Your task to perform on an android device: check google app version Image 0: 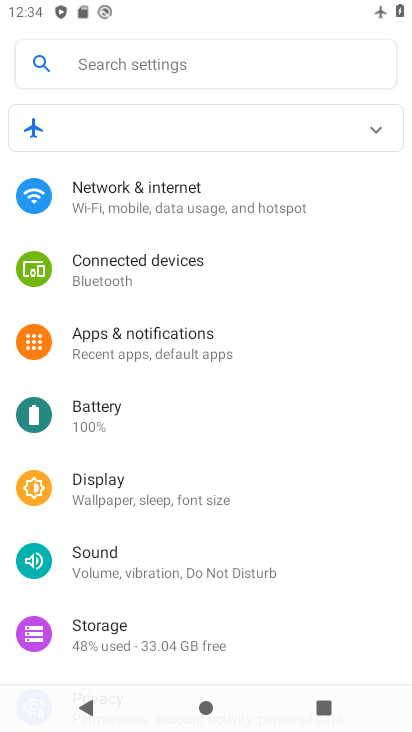
Step 0: press home button
Your task to perform on an android device: check google app version Image 1: 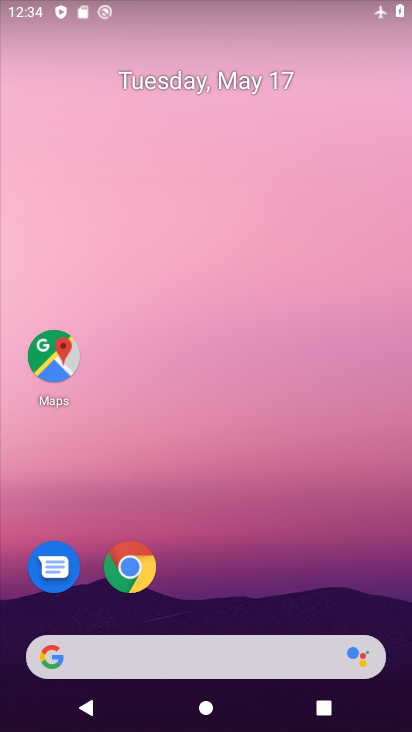
Step 1: drag from (263, 582) to (241, 137)
Your task to perform on an android device: check google app version Image 2: 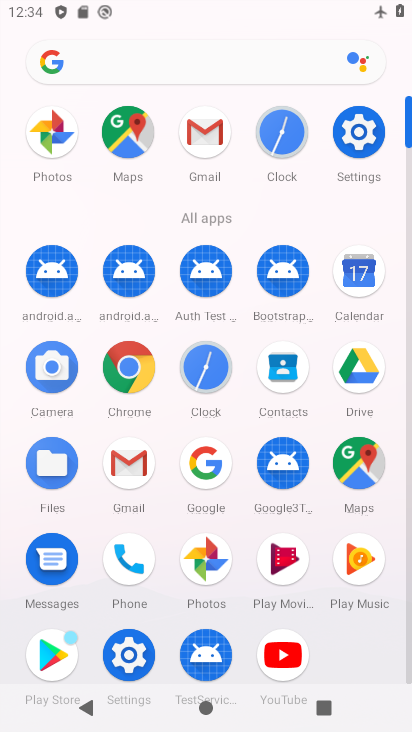
Step 2: click (210, 455)
Your task to perform on an android device: check google app version Image 3: 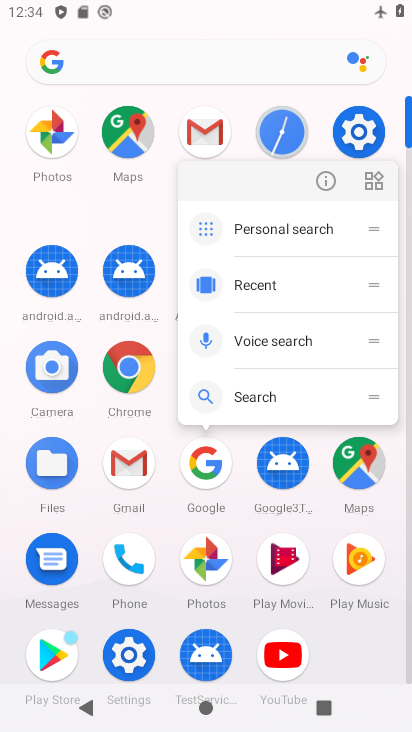
Step 3: click (324, 181)
Your task to perform on an android device: check google app version Image 4: 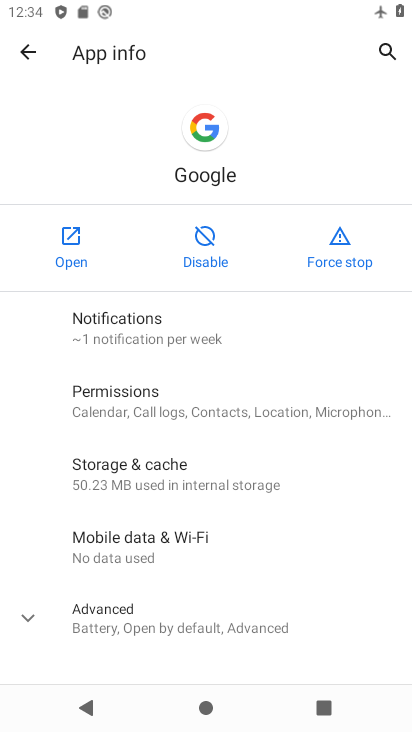
Step 4: drag from (242, 586) to (191, 310)
Your task to perform on an android device: check google app version Image 5: 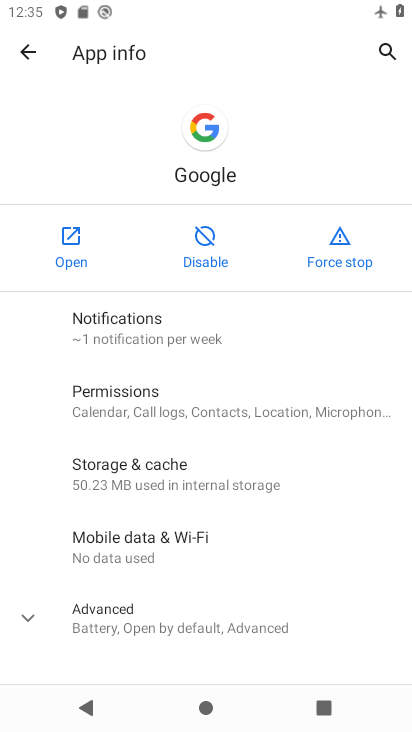
Step 5: click (104, 610)
Your task to perform on an android device: check google app version Image 6: 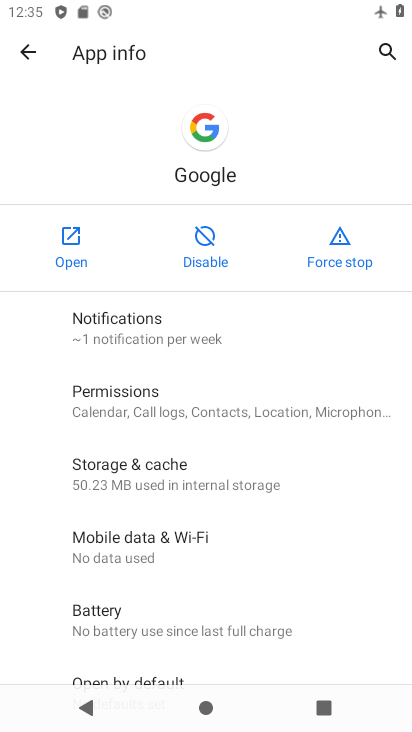
Step 6: drag from (104, 610) to (71, 202)
Your task to perform on an android device: check google app version Image 7: 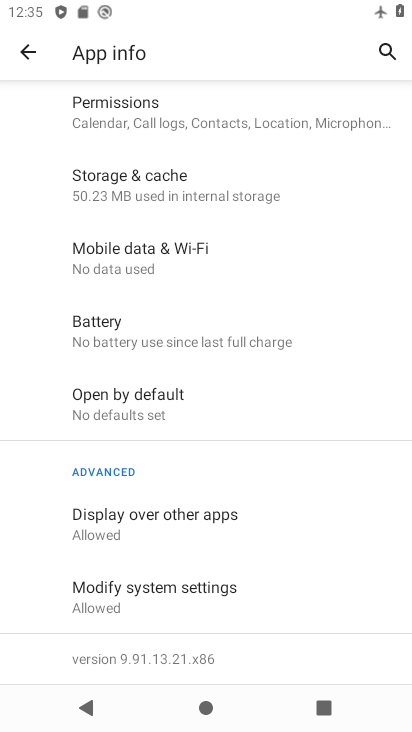
Step 7: click (162, 656)
Your task to perform on an android device: check google app version Image 8: 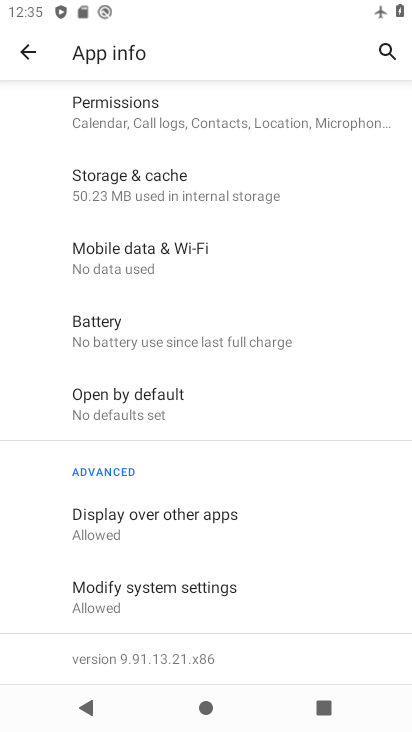
Step 8: task complete